Your task to perform on an android device: turn off javascript in the chrome app Image 0: 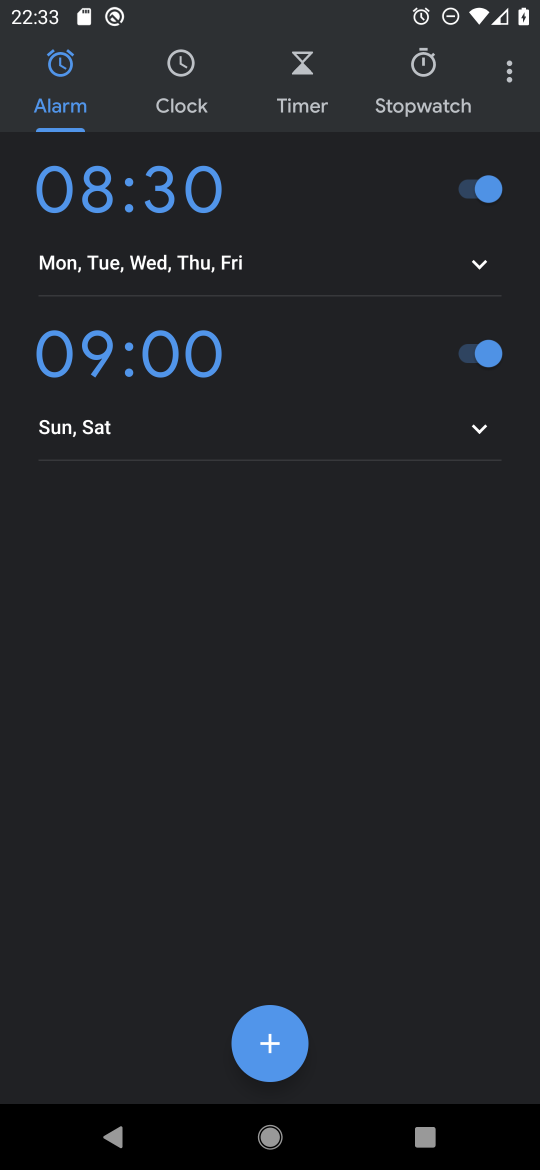
Step 0: press home button
Your task to perform on an android device: turn off javascript in the chrome app Image 1: 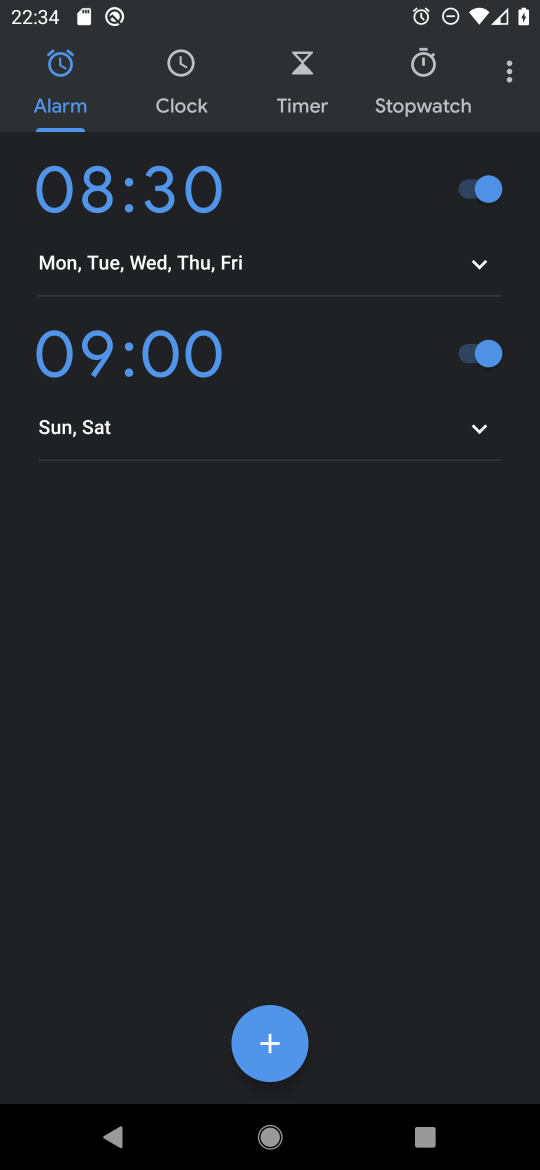
Step 1: drag from (241, 875) to (232, 1)
Your task to perform on an android device: turn off javascript in the chrome app Image 2: 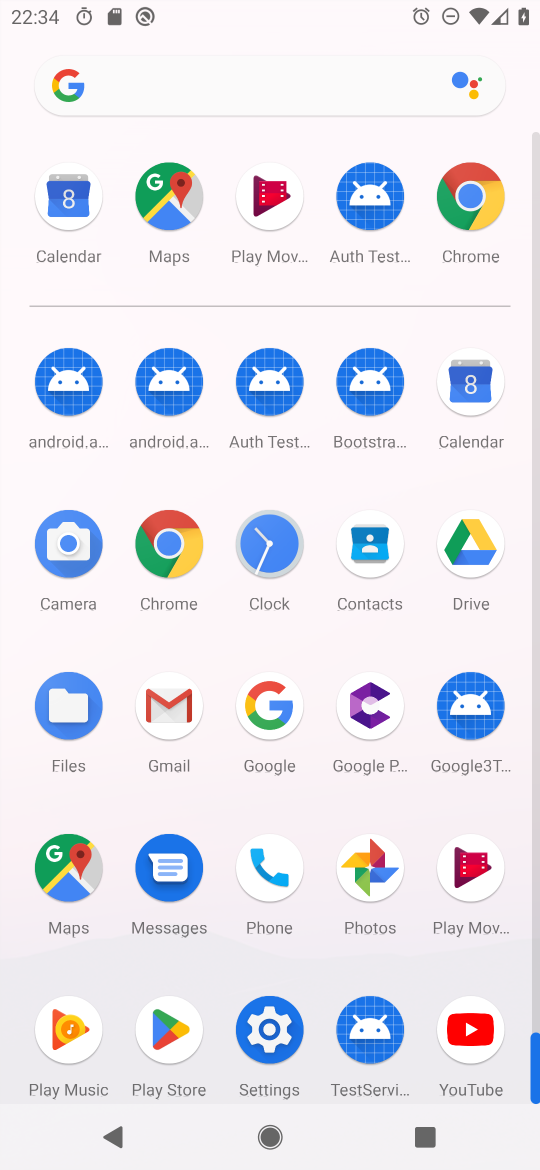
Step 2: click (168, 545)
Your task to perform on an android device: turn off javascript in the chrome app Image 3: 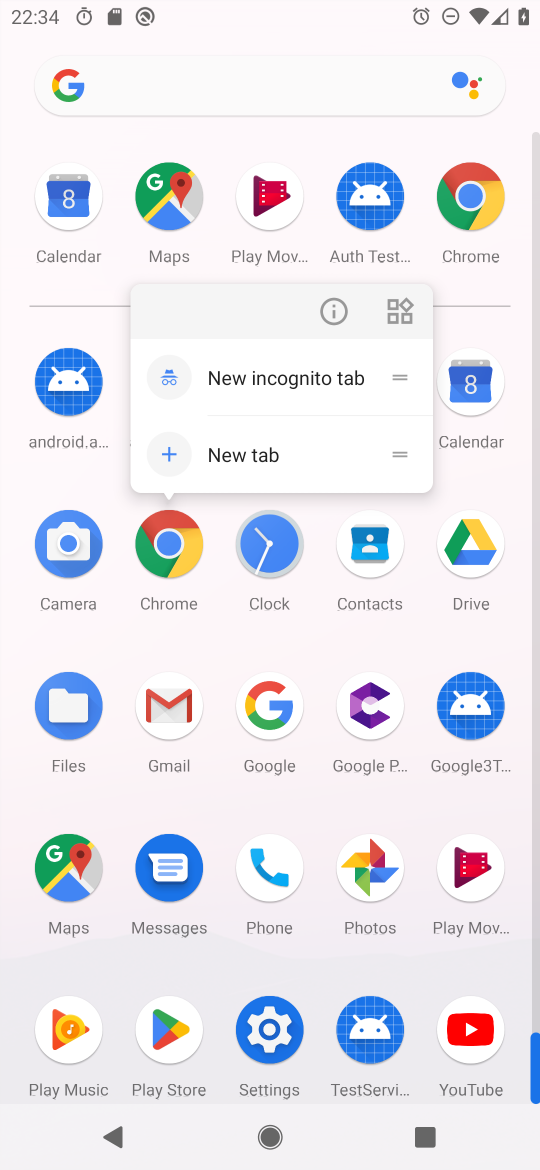
Step 3: click (338, 318)
Your task to perform on an android device: turn off javascript in the chrome app Image 4: 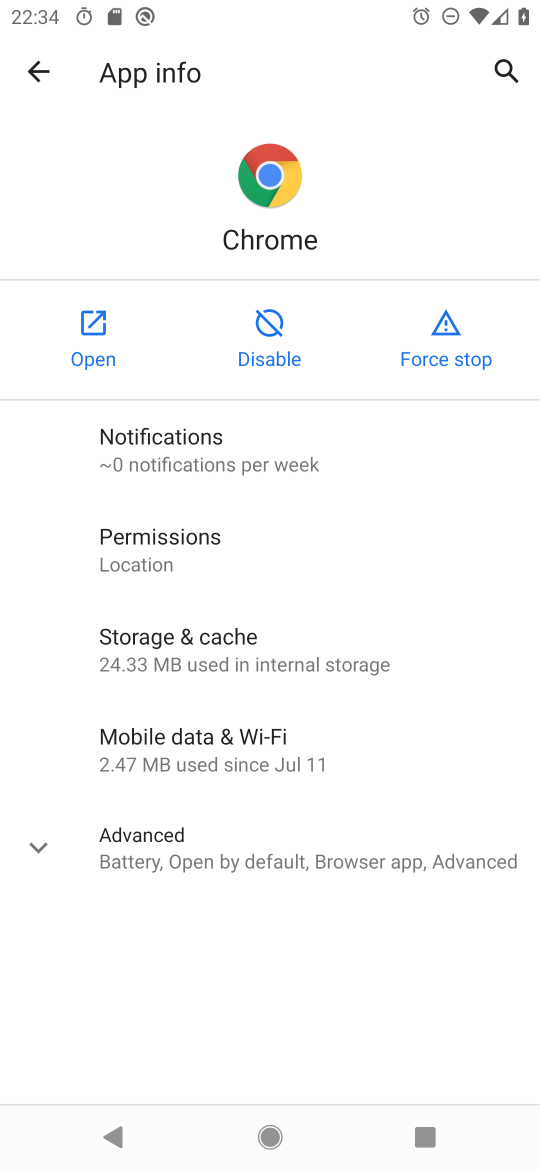
Step 4: click (89, 335)
Your task to perform on an android device: turn off javascript in the chrome app Image 5: 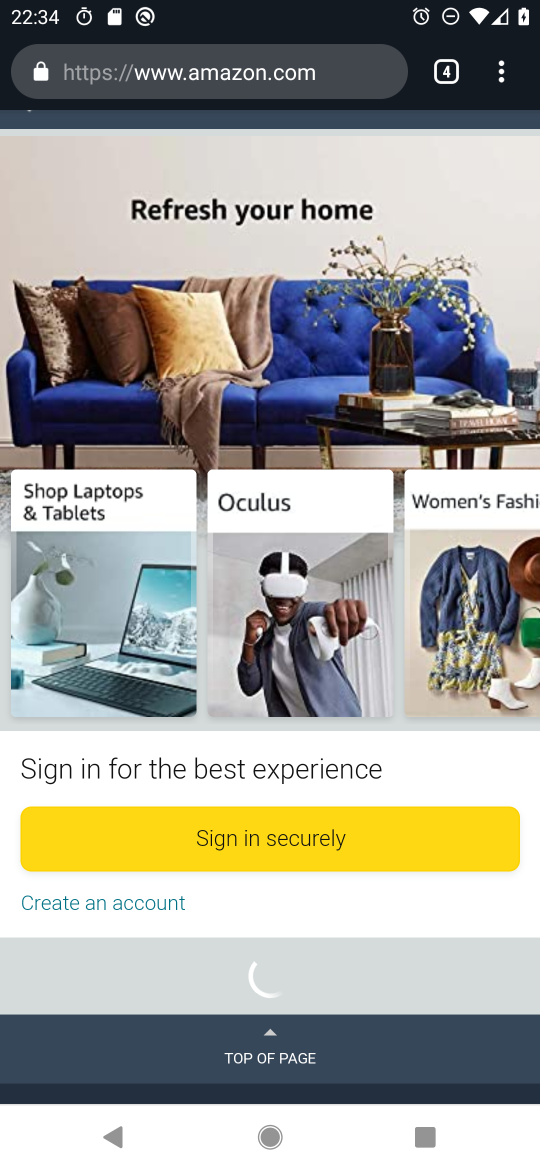
Step 5: drag from (502, 72) to (260, 873)
Your task to perform on an android device: turn off javascript in the chrome app Image 6: 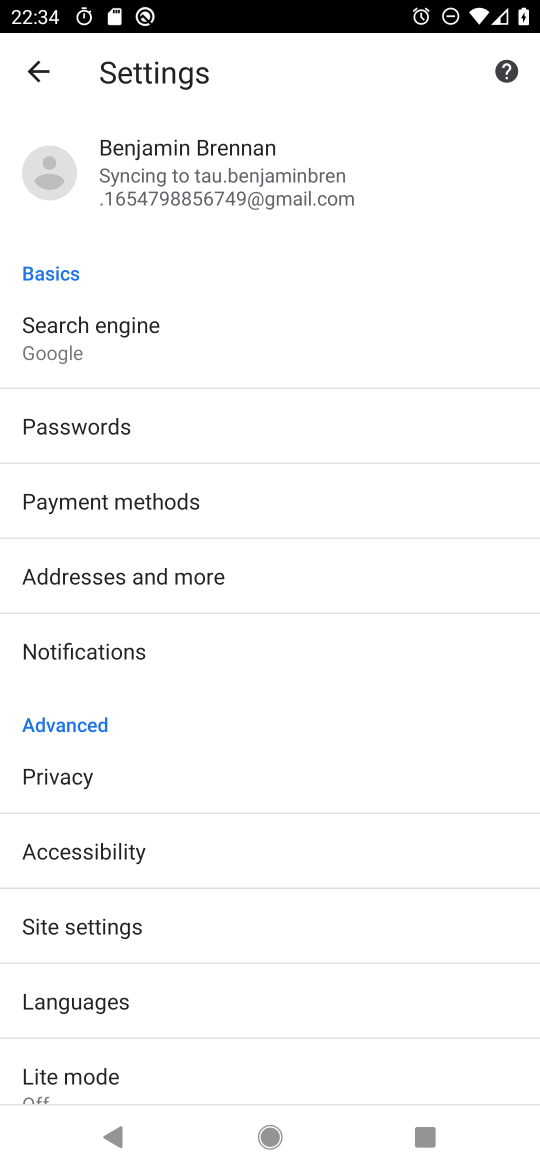
Step 6: drag from (148, 978) to (217, 518)
Your task to perform on an android device: turn off javascript in the chrome app Image 7: 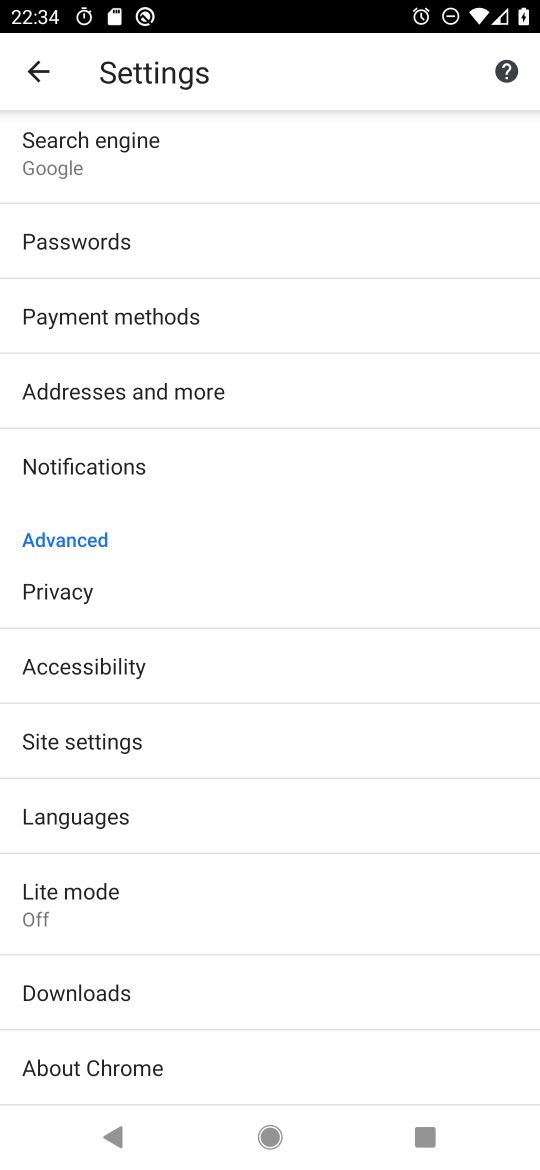
Step 7: click (119, 757)
Your task to perform on an android device: turn off javascript in the chrome app Image 8: 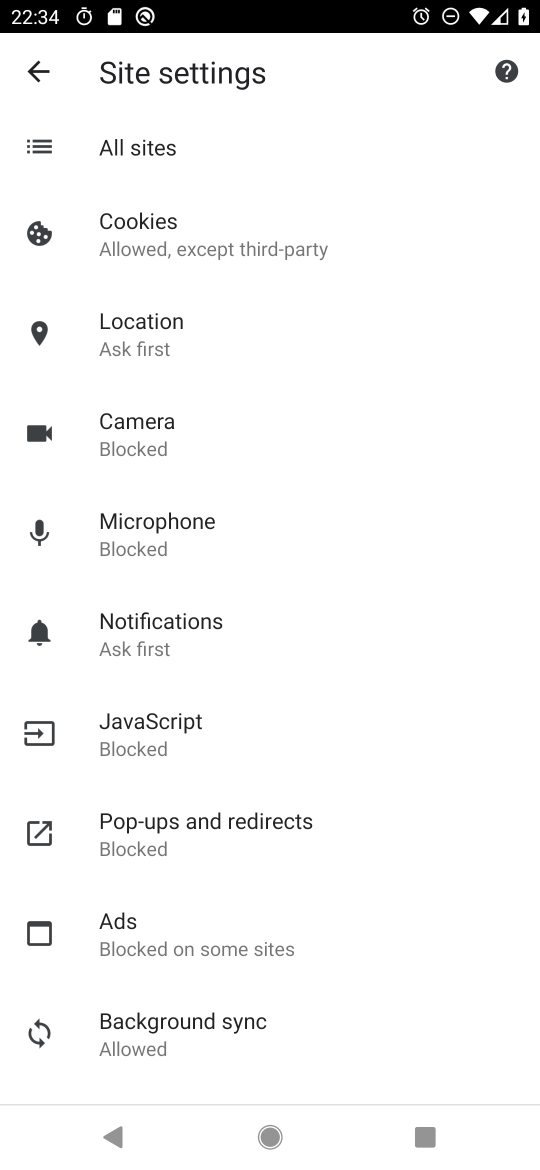
Step 8: click (176, 746)
Your task to perform on an android device: turn off javascript in the chrome app Image 9: 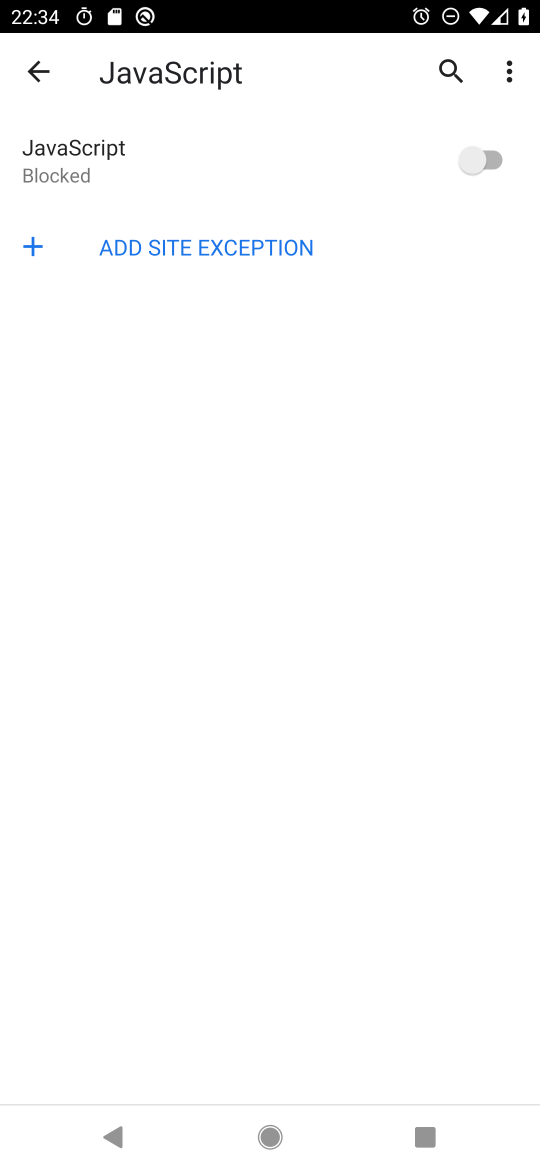
Step 9: task complete